Your task to perform on an android device: turn off sleep mode Image 0: 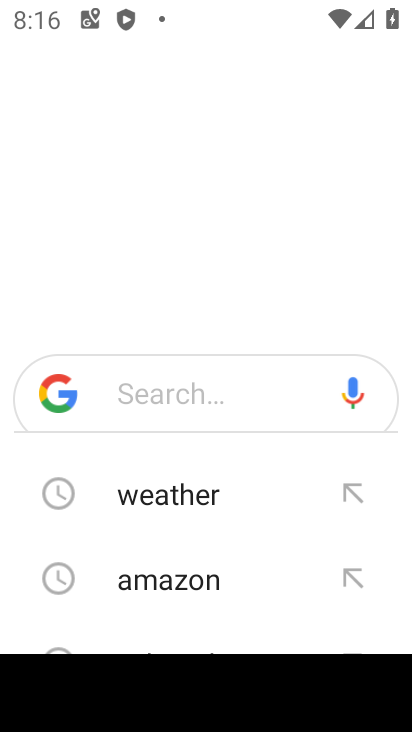
Step 0: press home button
Your task to perform on an android device: turn off sleep mode Image 1: 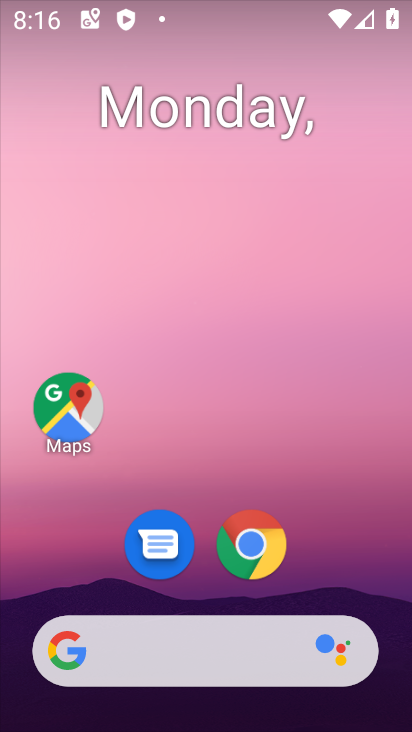
Step 1: drag from (212, 587) to (135, 85)
Your task to perform on an android device: turn off sleep mode Image 2: 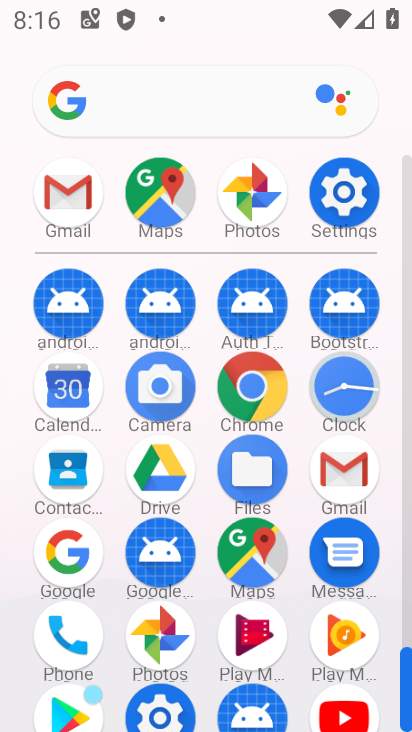
Step 2: click (351, 197)
Your task to perform on an android device: turn off sleep mode Image 3: 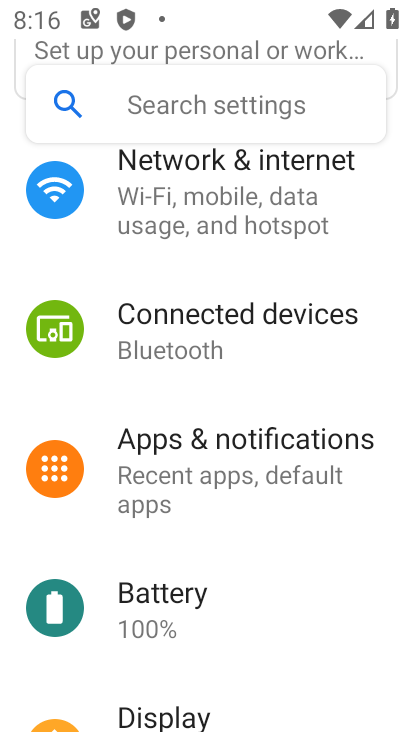
Step 3: click (190, 691)
Your task to perform on an android device: turn off sleep mode Image 4: 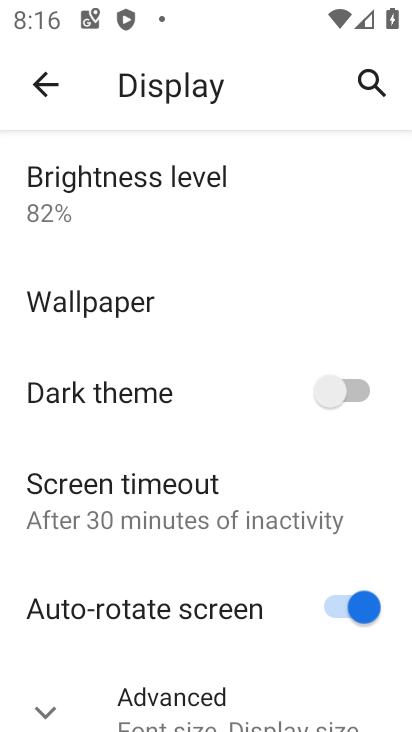
Step 4: click (116, 689)
Your task to perform on an android device: turn off sleep mode Image 5: 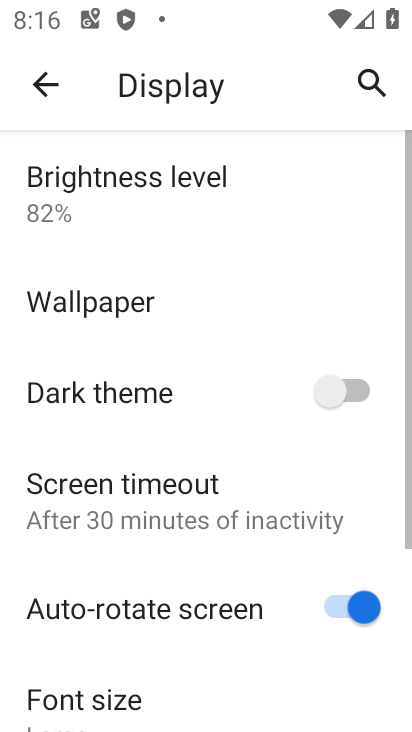
Step 5: task complete